Your task to perform on an android device: Open accessibility settings Image 0: 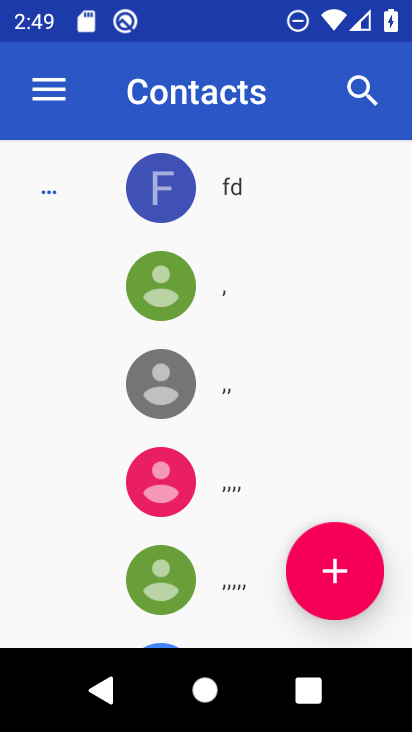
Step 0: press home button
Your task to perform on an android device: Open accessibility settings Image 1: 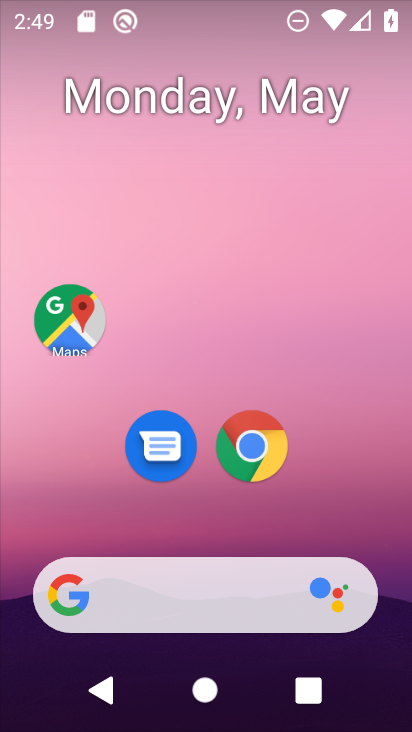
Step 1: drag from (165, 487) to (206, 15)
Your task to perform on an android device: Open accessibility settings Image 2: 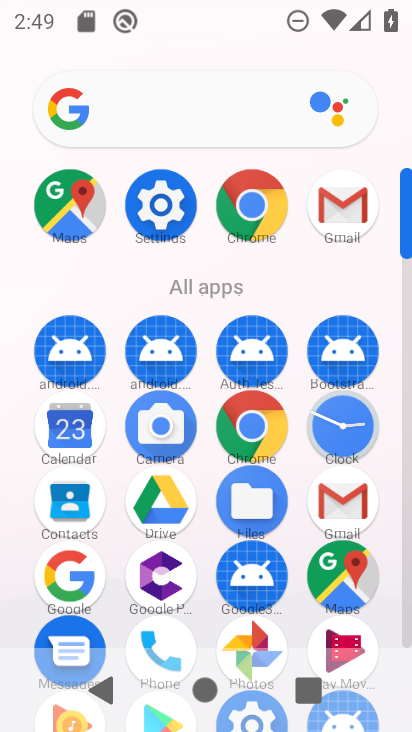
Step 2: click (167, 229)
Your task to perform on an android device: Open accessibility settings Image 3: 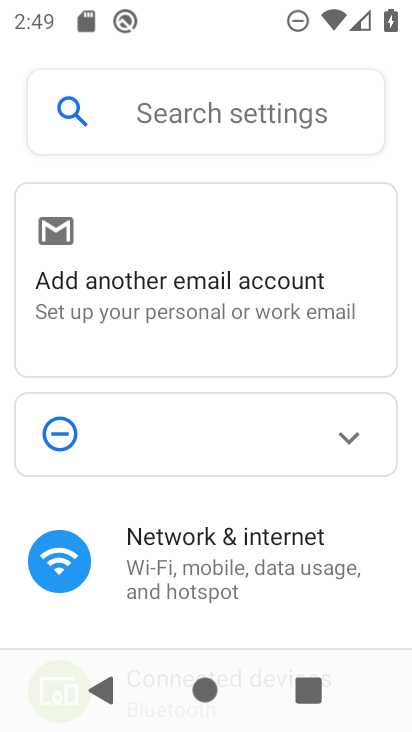
Step 3: drag from (147, 603) to (271, 104)
Your task to perform on an android device: Open accessibility settings Image 4: 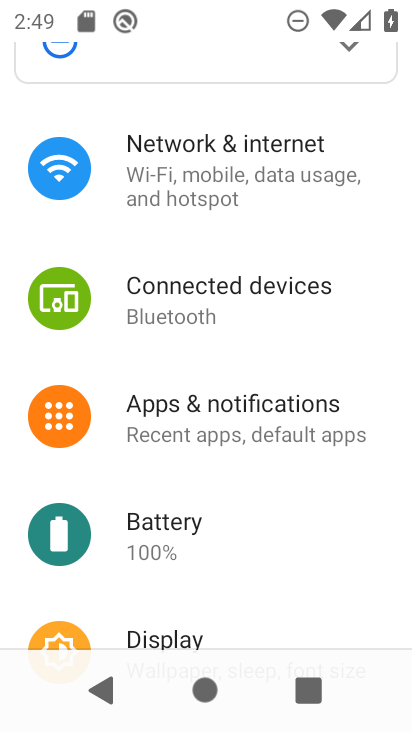
Step 4: drag from (82, 581) to (201, 83)
Your task to perform on an android device: Open accessibility settings Image 5: 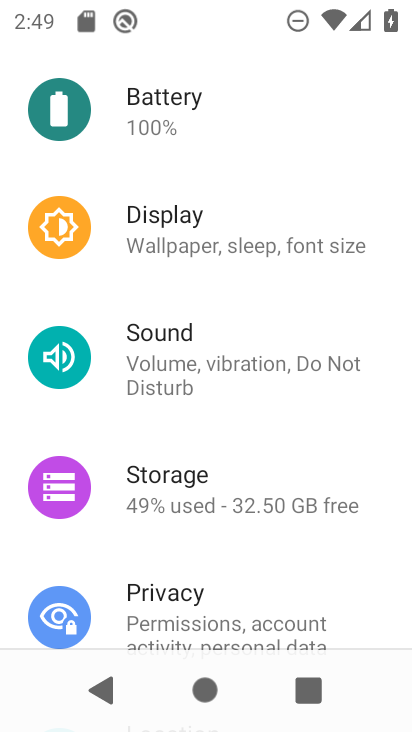
Step 5: drag from (115, 575) to (155, 168)
Your task to perform on an android device: Open accessibility settings Image 6: 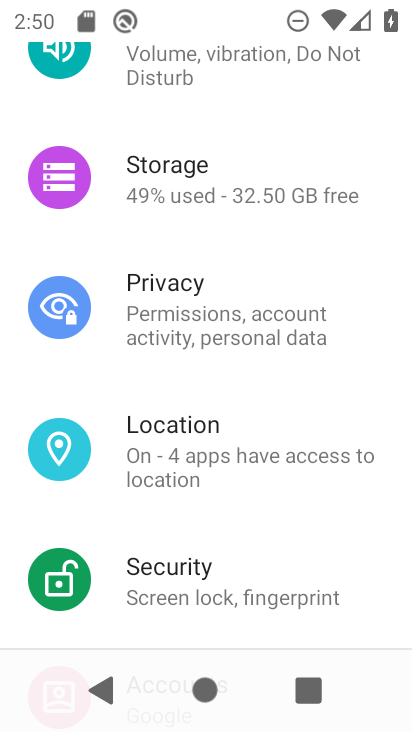
Step 6: drag from (116, 547) to (156, 245)
Your task to perform on an android device: Open accessibility settings Image 7: 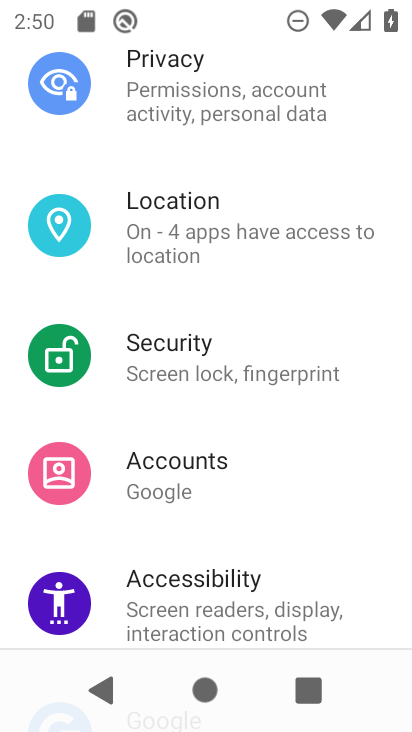
Step 7: click (160, 597)
Your task to perform on an android device: Open accessibility settings Image 8: 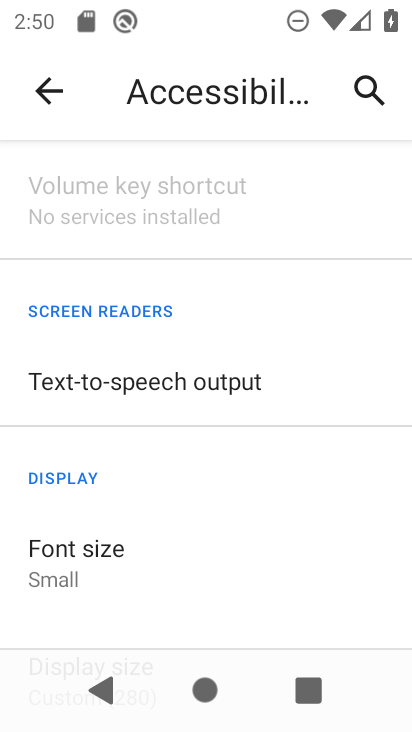
Step 8: task complete